Your task to perform on an android device: toggle airplane mode Image 0: 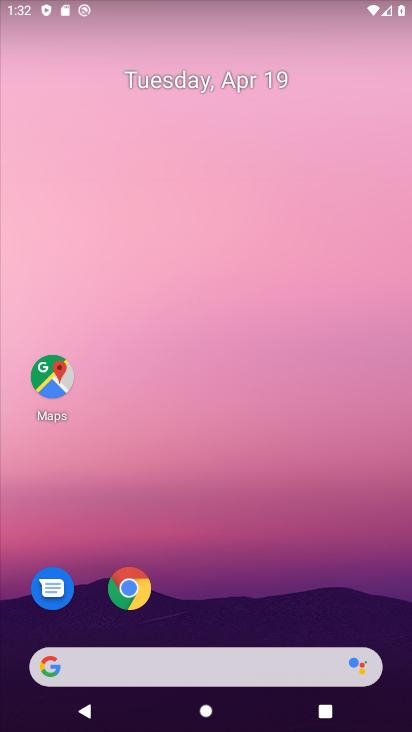
Step 0: drag from (210, 726) to (178, 74)
Your task to perform on an android device: toggle airplane mode Image 1: 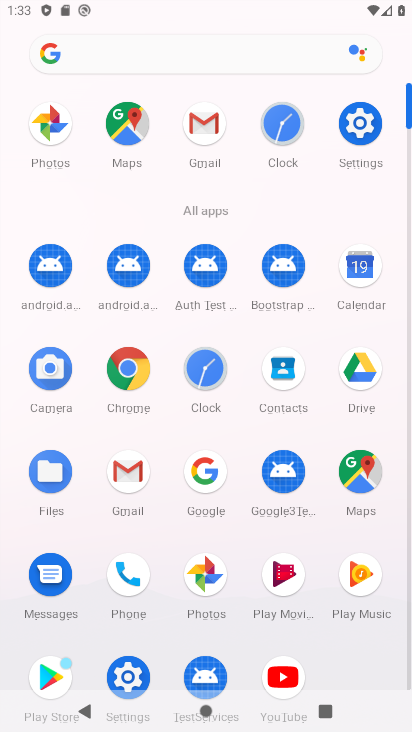
Step 1: click (355, 125)
Your task to perform on an android device: toggle airplane mode Image 2: 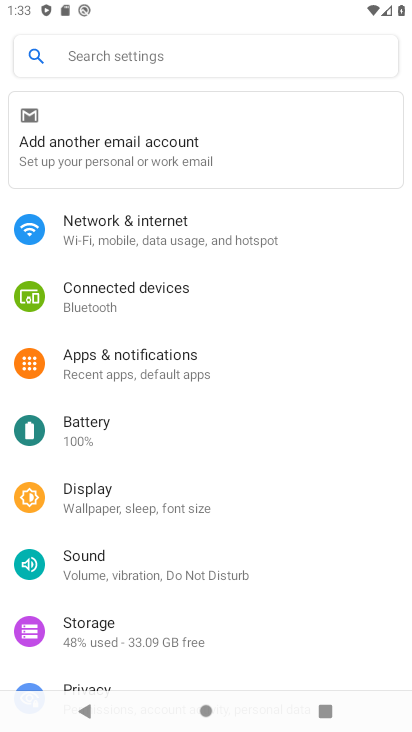
Step 2: click (157, 225)
Your task to perform on an android device: toggle airplane mode Image 3: 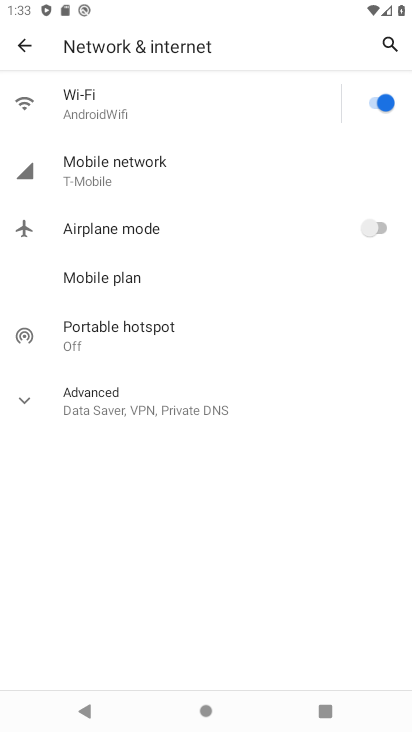
Step 3: click (385, 231)
Your task to perform on an android device: toggle airplane mode Image 4: 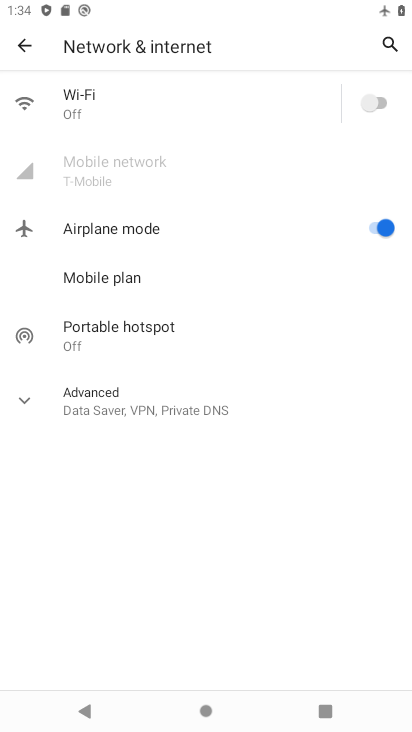
Step 4: task complete